Your task to perform on an android device: Open calendar and show me the third week of next month Image 0: 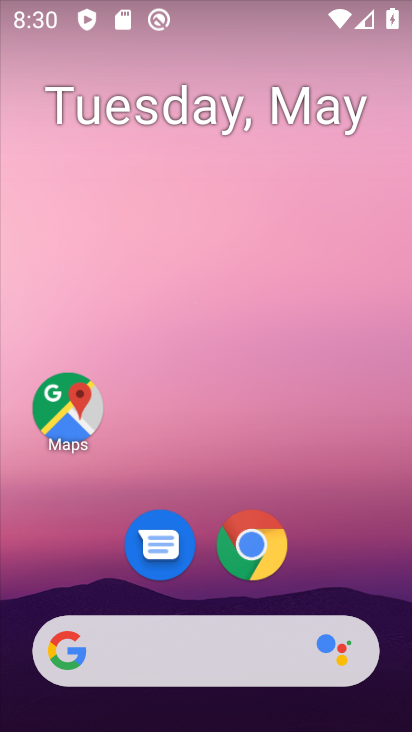
Step 0: drag from (354, 523) to (317, 162)
Your task to perform on an android device: Open calendar and show me the third week of next month Image 1: 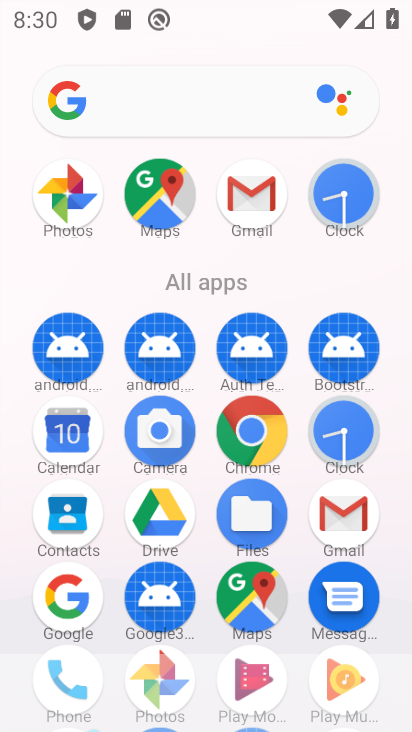
Step 1: drag from (372, 578) to (315, 114)
Your task to perform on an android device: Open calendar and show me the third week of next month Image 2: 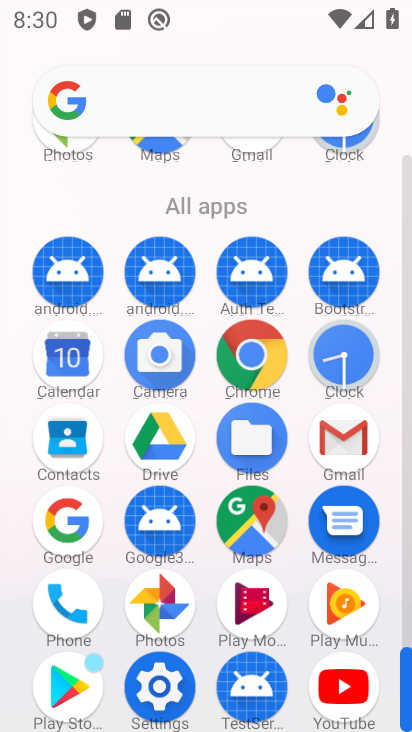
Step 2: click (63, 360)
Your task to perform on an android device: Open calendar and show me the third week of next month Image 3: 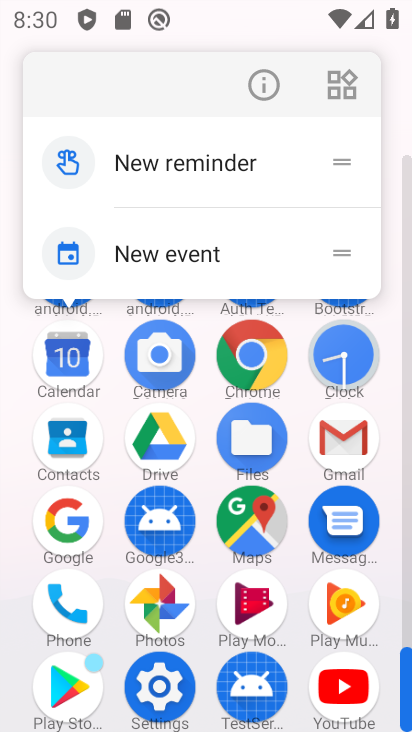
Step 3: click (79, 361)
Your task to perform on an android device: Open calendar and show me the third week of next month Image 4: 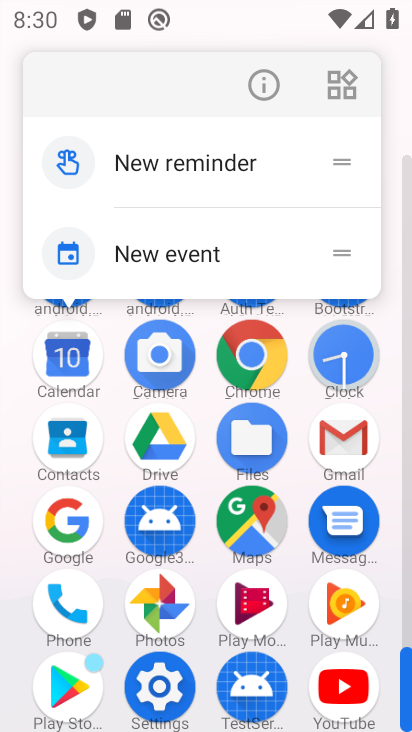
Step 4: click (74, 370)
Your task to perform on an android device: Open calendar and show me the third week of next month Image 5: 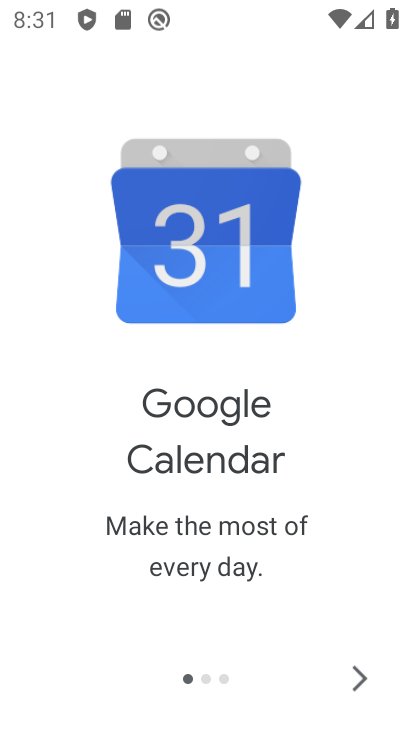
Step 5: click (359, 680)
Your task to perform on an android device: Open calendar and show me the third week of next month Image 6: 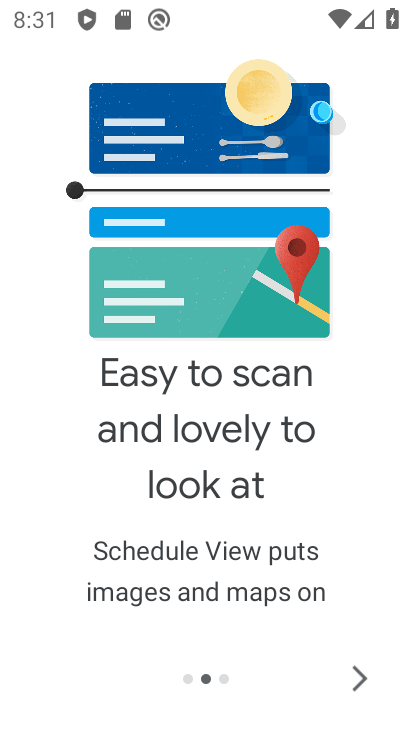
Step 6: click (359, 680)
Your task to perform on an android device: Open calendar and show me the third week of next month Image 7: 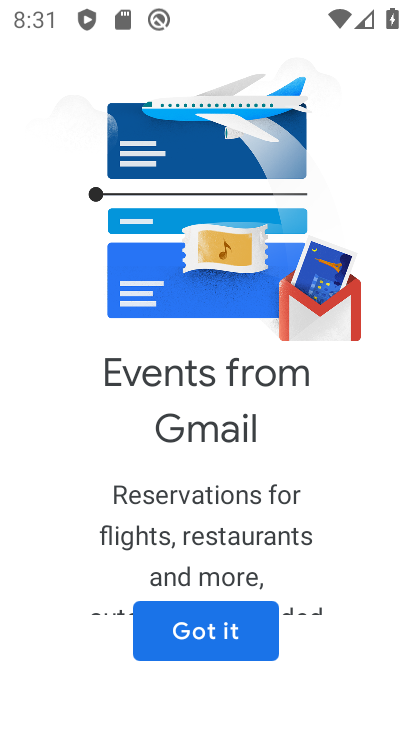
Step 7: click (206, 630)
Your task to perform on an android device: Open calendar and show me the third week of next month Image 8: 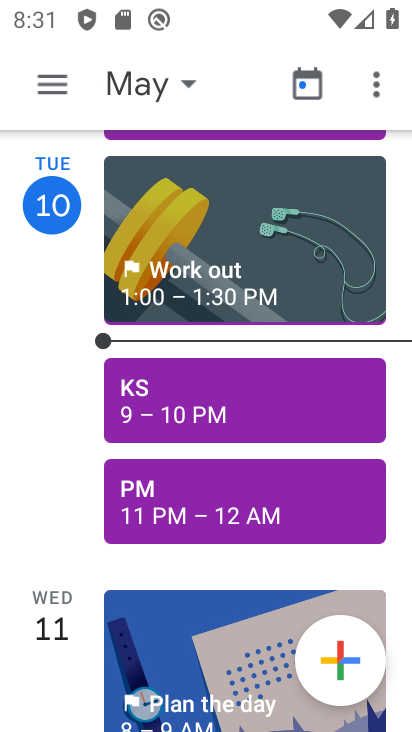
Step 8: drag from (211, 635) to (259, 336)
Your task to perform on an android device: Open calendar and show me the third week of next month Image 9: 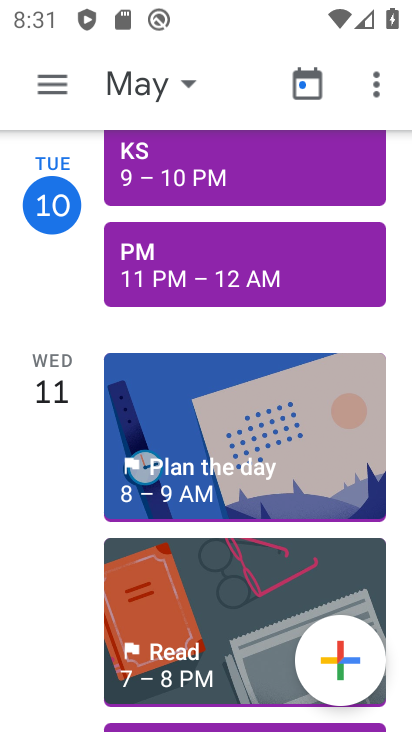
Step 9: click (125, 88)
Your task to perform on an android device: Open calendar and show me the third week of next month Image 10: 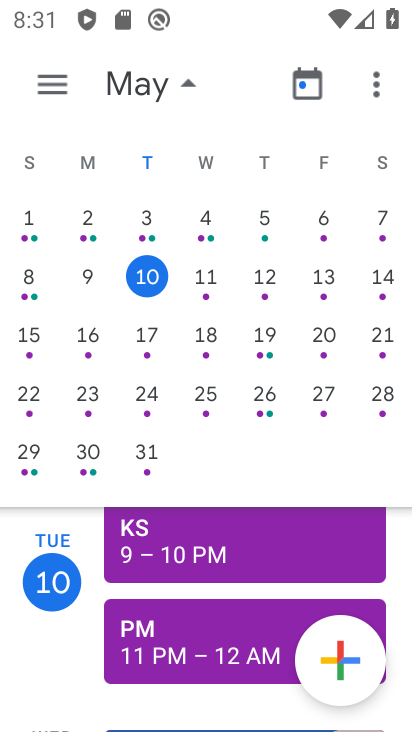
Step 10: click (27, 332)
Your task to perform on an android device: Open calendar and show me the third week of next month Image 11: 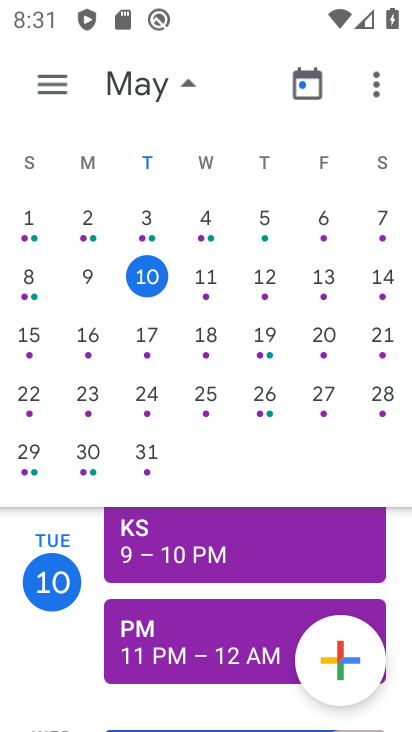
Step 11: task complete